Your task to perform on an android device: Clear the shopping cart on target. Search for bose soundsport free on target, select the first entry, add it to the cart, then select checkout. Image 0: 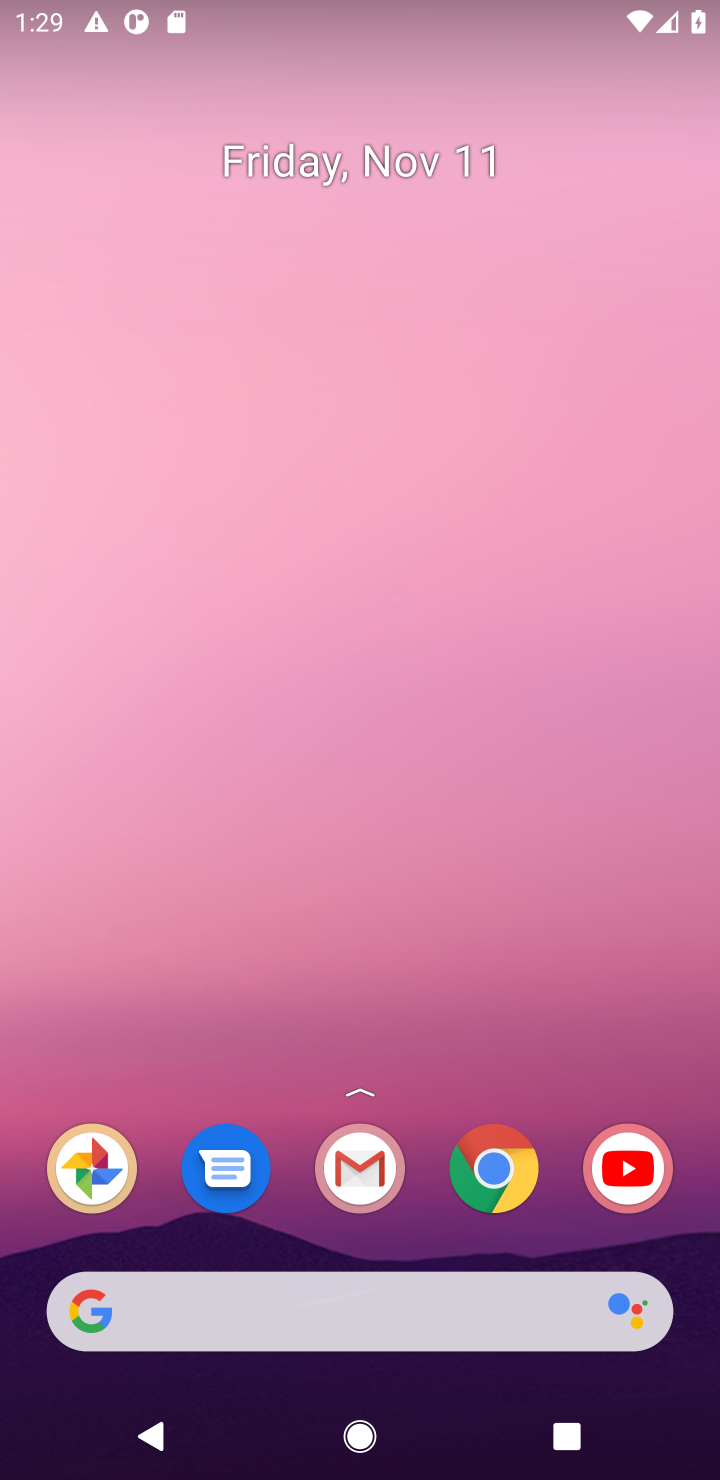
Step 0: click (485, 1174)
Your task to perform on an android device: Clear the shopping cart on target. Search for bose soundsport free on target, select the first entry, add it to the cart, then select checkout. Image 1: 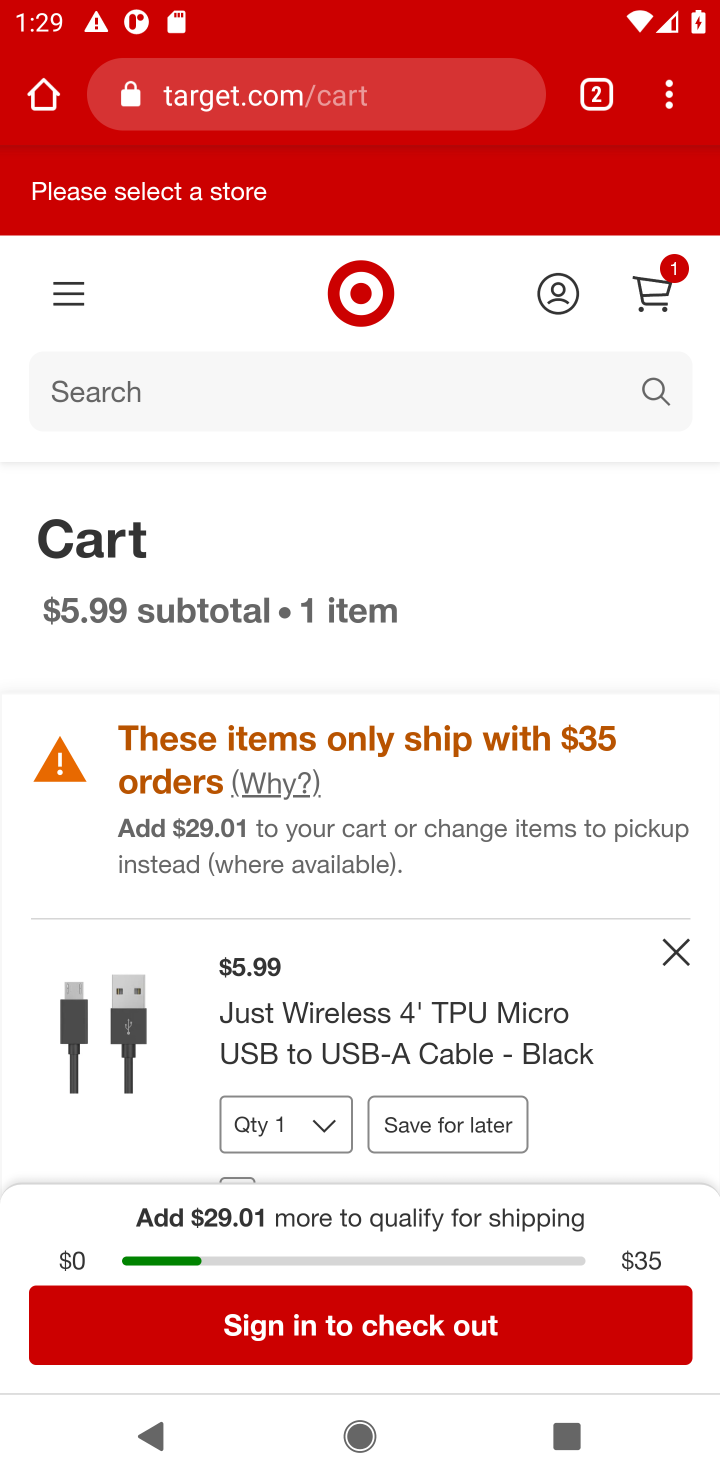
Step 1: drag from (318, 926) to (363, 566)
Your task to perform on an android device: Clear the shopping cart on target. Search for bose soundsport free on target, select the first entry, add it to the cart, then select checkout. Image 2: 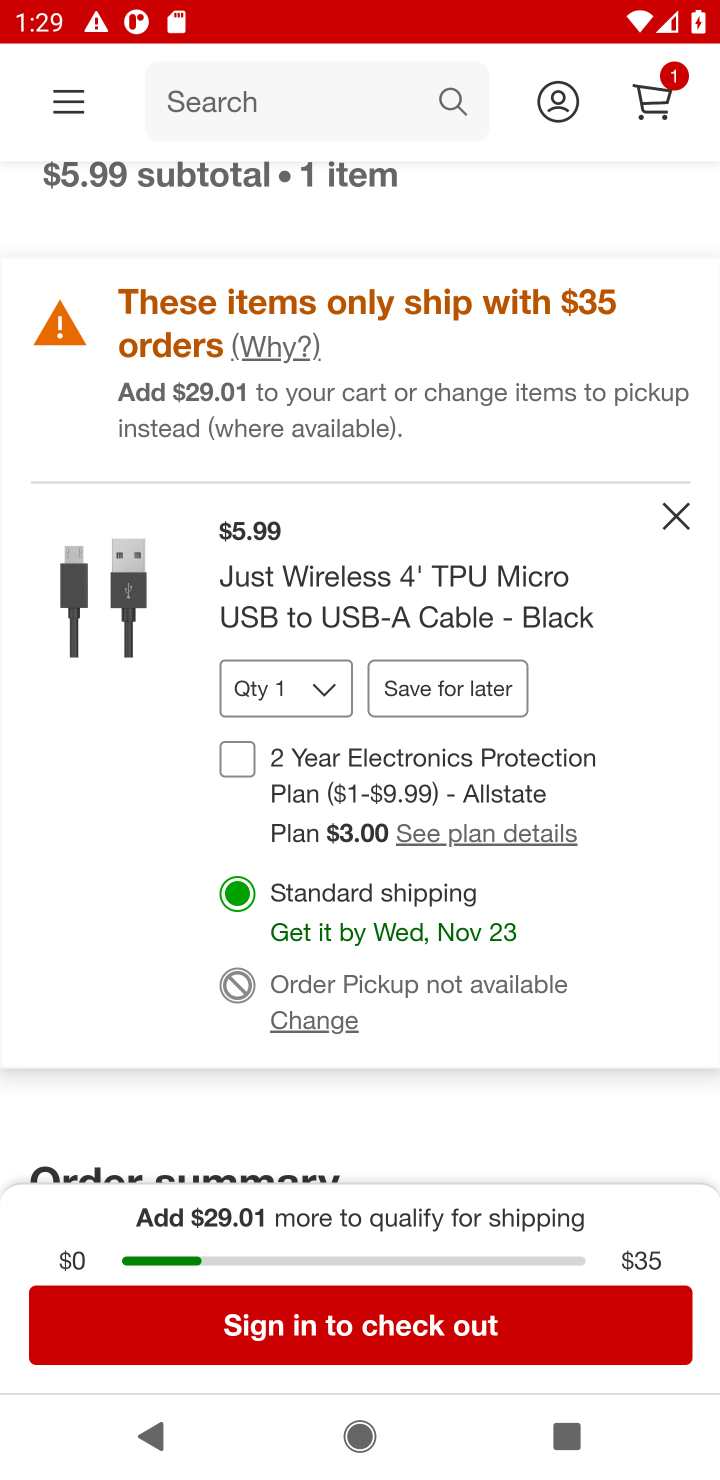
Step 2: click (682, 517)
Your task to perform on an android device: Clear the shopping cart on target. Search for bose soundsport free on target, select the first entry, add it to the cart, then select checkout. Image 3: 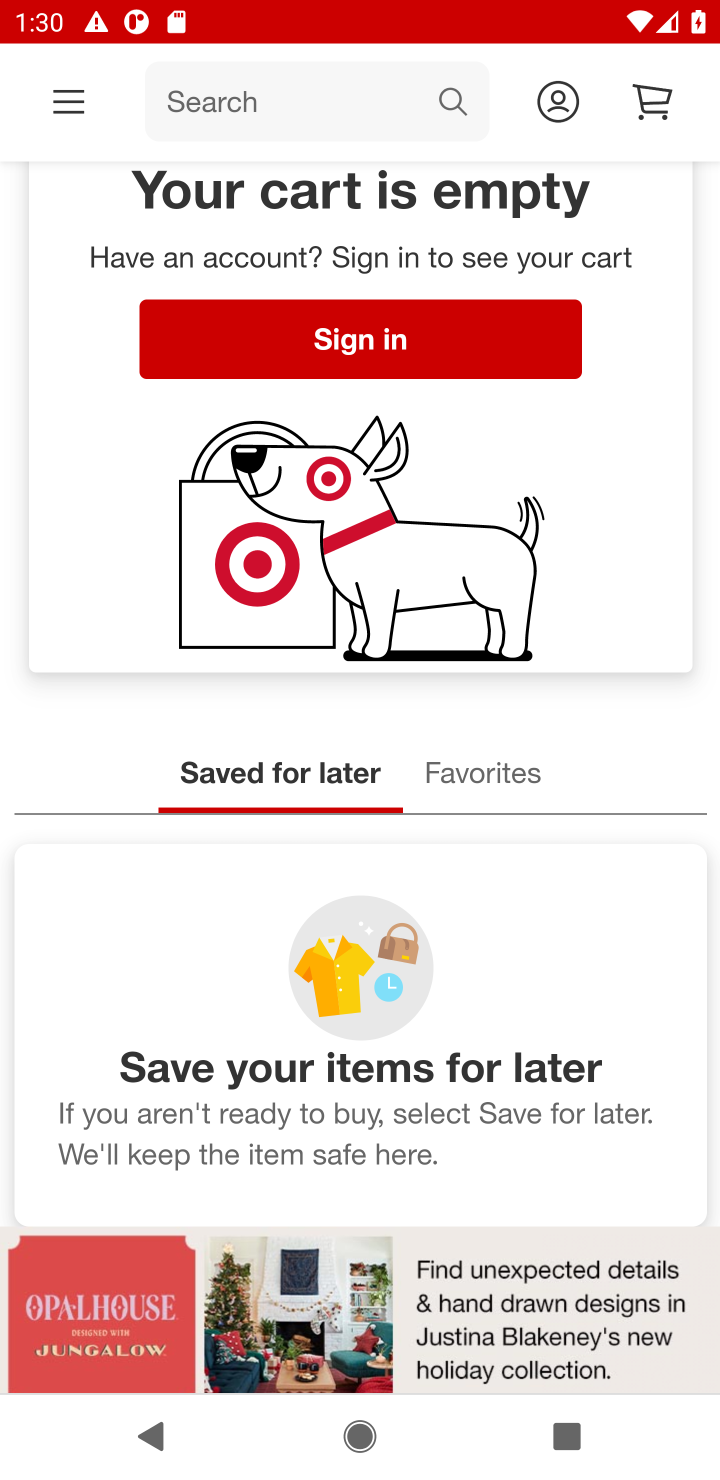
Step 3: click (456, 102)
Your task to perform on an android device: Clear the shopping cart on target. Search for bose soundsport free on target, select the first entry, add it to the cart, then select checkout. Image 4: 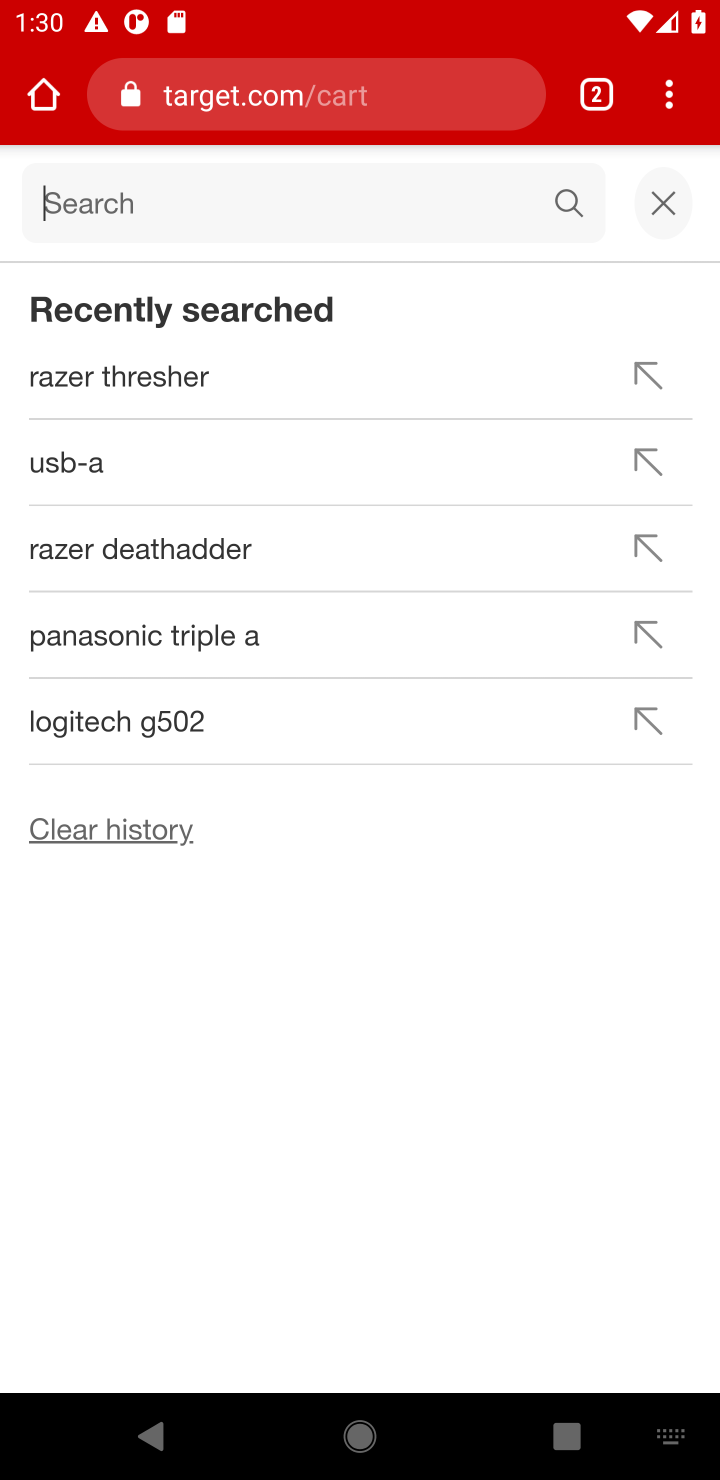
Step 4: type "bose soundsport free"
Your task to perform on an android device: Clear the shopping cart on target. Search for bose soundsport free on target, select the first entry, add it to the cart, then select checkout. Image 5: 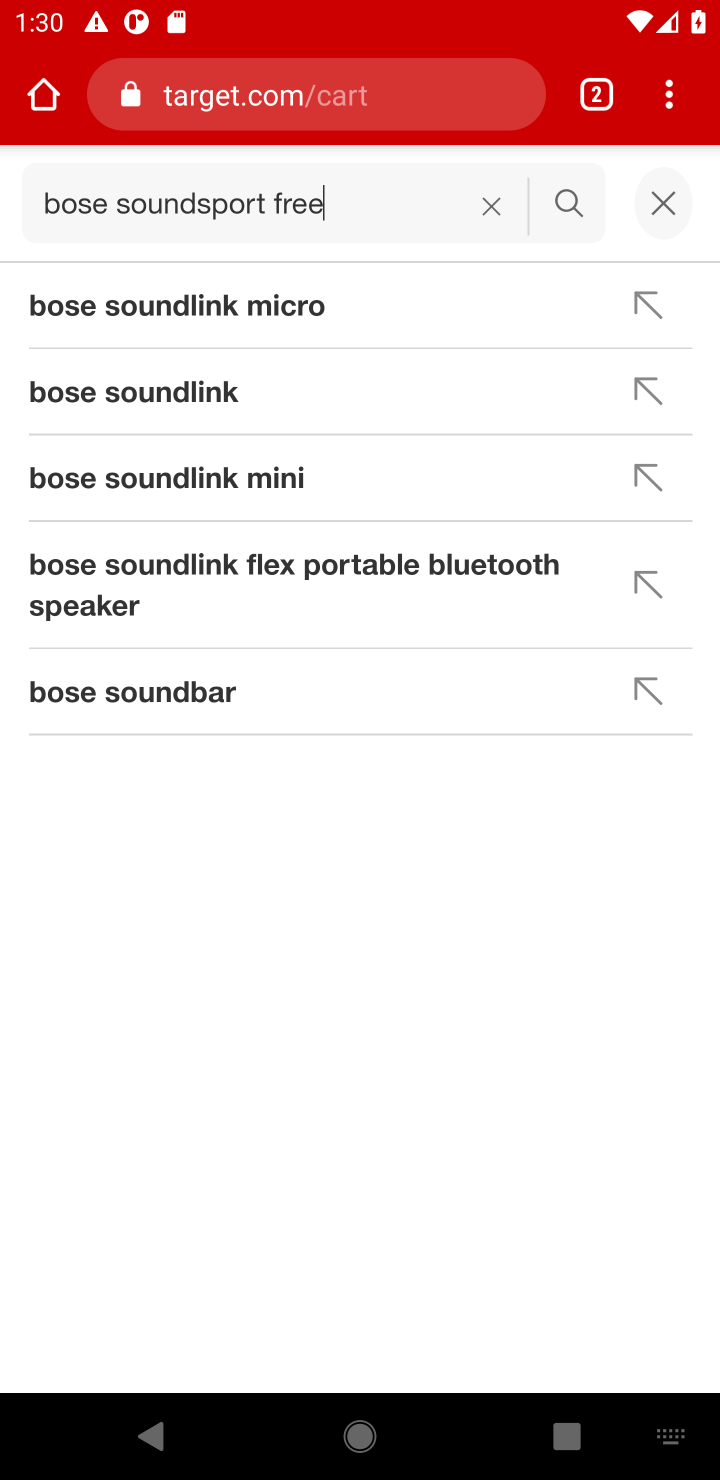
Step 5: click (574, 204)
Your task to perform on an android device: Clear the shopping cart on target. Search for bose soundsport free on target, select the first entry, add it to the cart, then select checkout. Image 6: 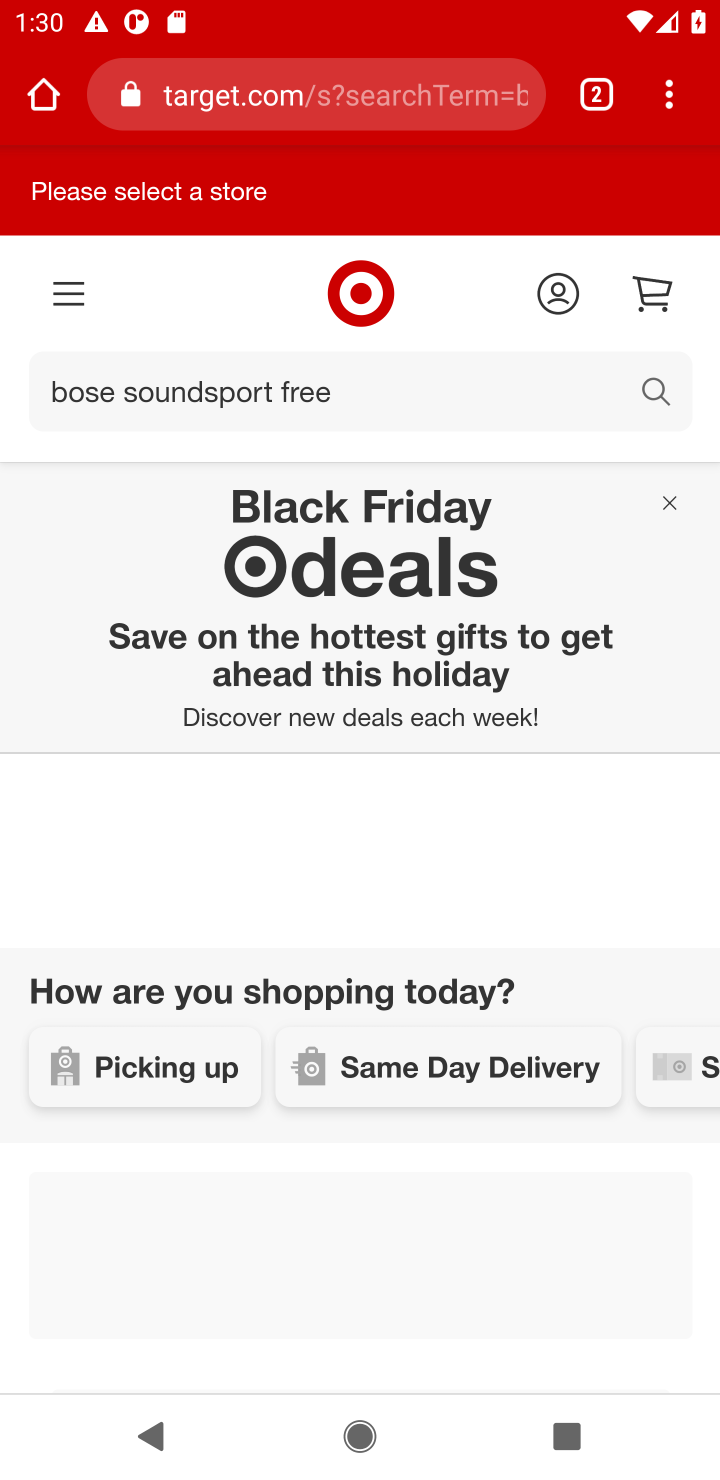
Step 6: task complete